Your task to perform on an android device: open a new tab in the chrome app Image 0: 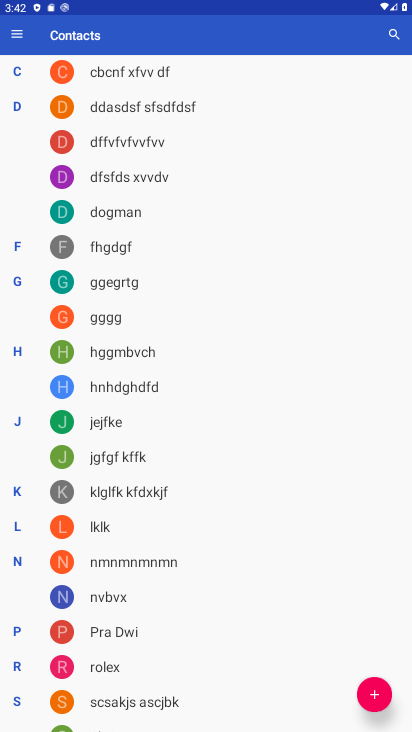
Step 0: press back button
Your task to perform on an android device: open a new tab in the chrome app Image 1: 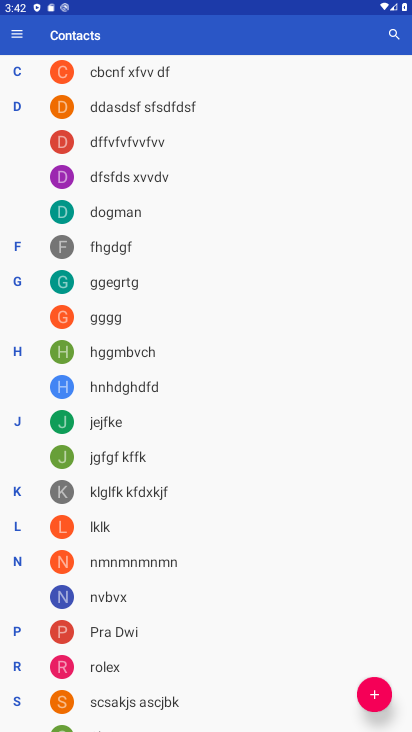
Step 1: press back button
Your task to perform on an android device: open a new tab in the chrome app Image 2: 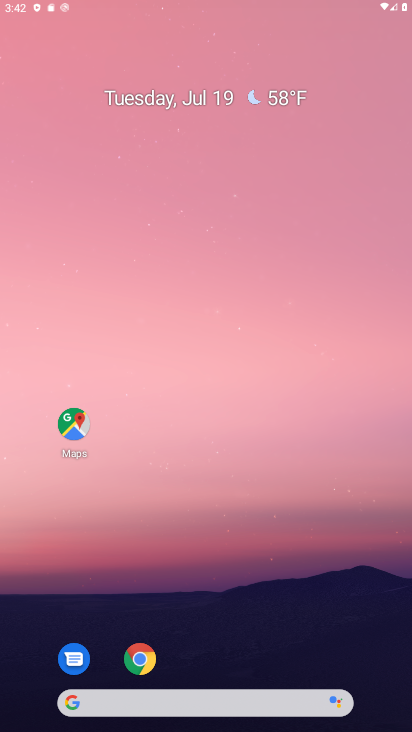
Step 2: press back button
Your task to perform on an android device: open a new tab in the chrome app Image 3: 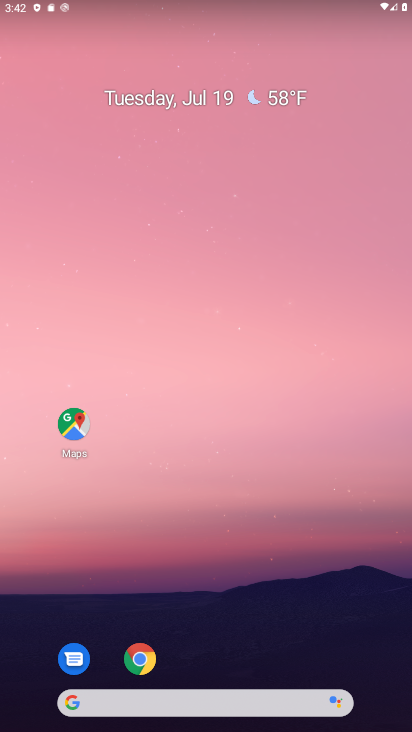
Step 3: drag from (292, 596) to (265, 86)
Your task to perform on an android device: open a new tab in the chrome app Image 4: 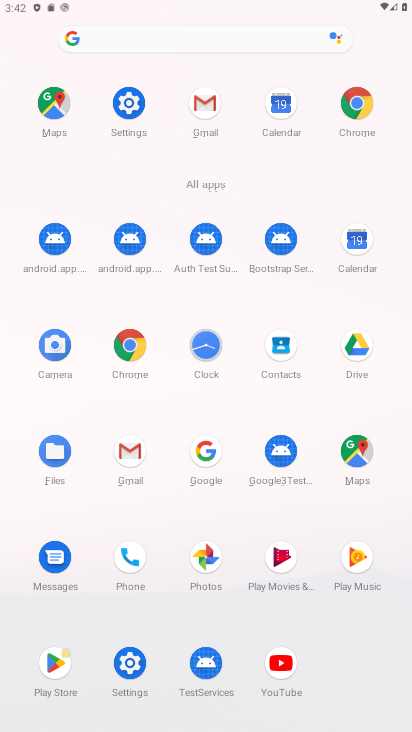
Step 4: click (348, 110)
Your task to perform on an android device: open a new tab in the chrome app Image 5: 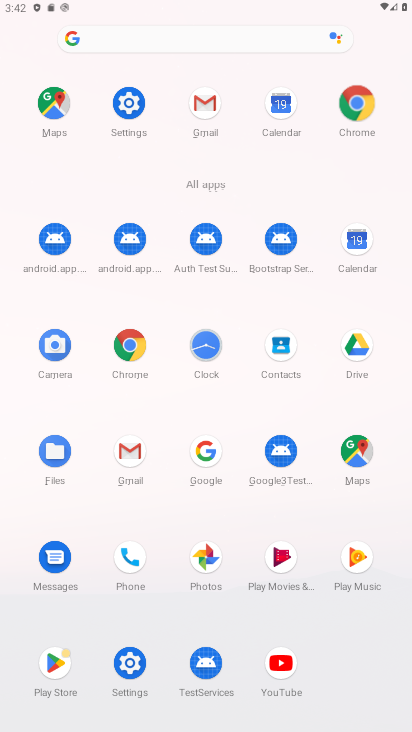
Step 5: click (349, 109)
Your task to perform on an android device: open a new tab in the chrome app Image 6: 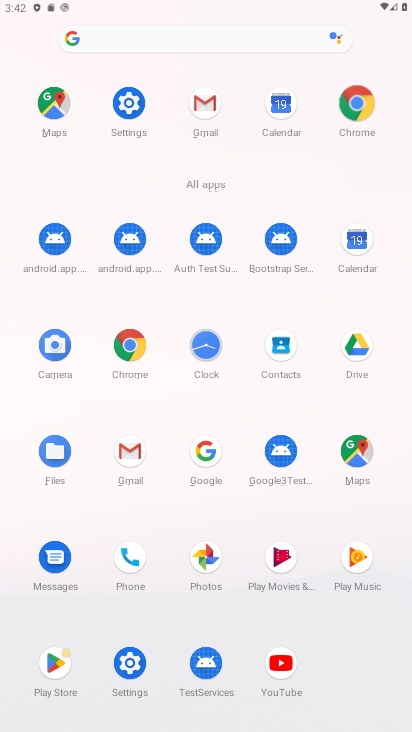
Step 6: click (350, 110)
Your task to perform on an android device: open a new tab in the chrome app Image 7: 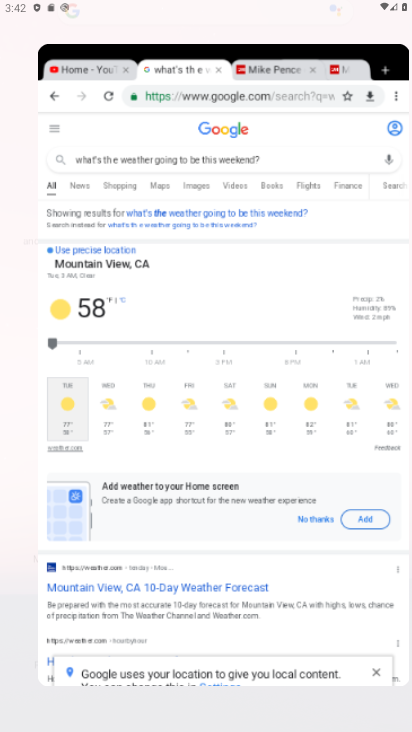
Step 7: click (350, 110)
Your task to perform on an android device: open a new tab in the chrome app Image 8: 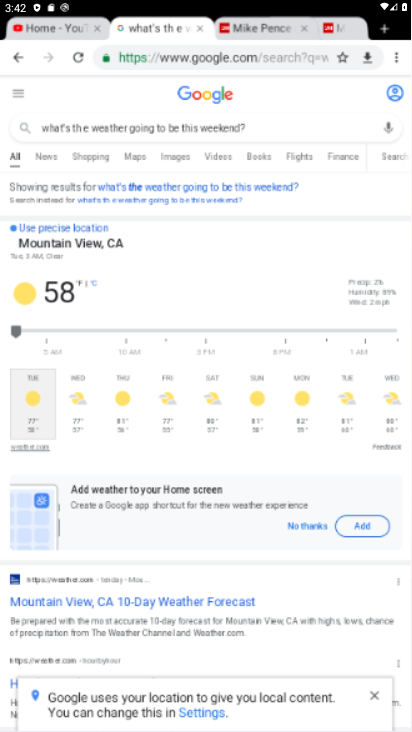
Step 8: click (350, 110)
Your task to perform on an android device: open a new tab in the chrome app Image 9: 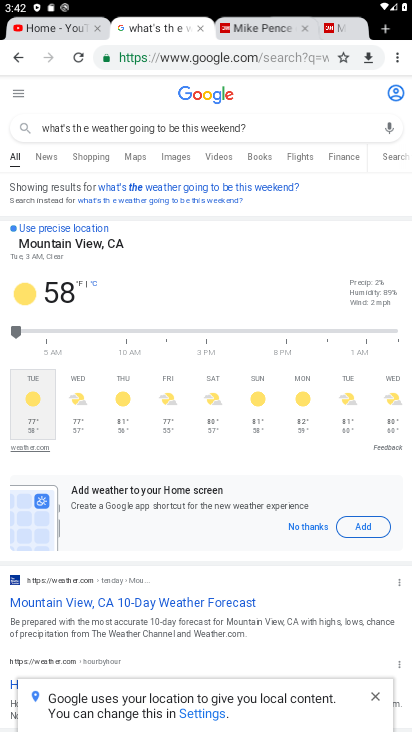
Step 9: drag from (407, 56) to (404, 113)
Your task to perform on an android device: open a new tab in the chrome app Image 10: 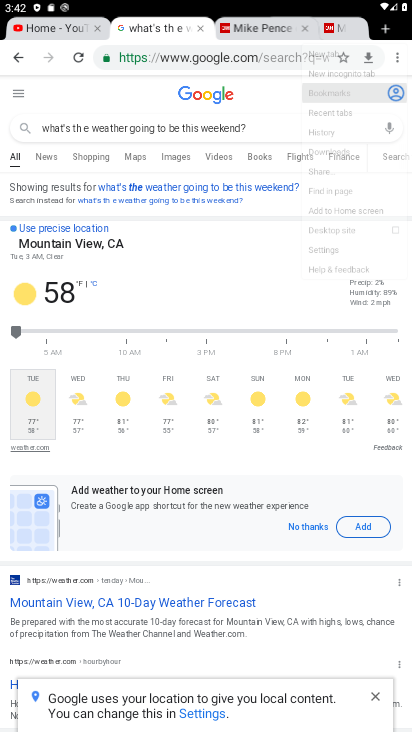
Step 10: click (404, 113)
Your task to perform on an android device: open a new tab in the chrome app Image 11: 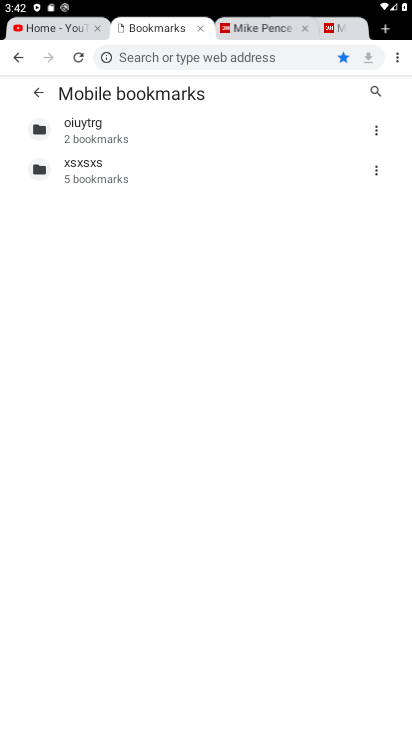
Step 11: click (404, 59)
Your task to perform on an android device: open a new tab in the chrome app Image 12: 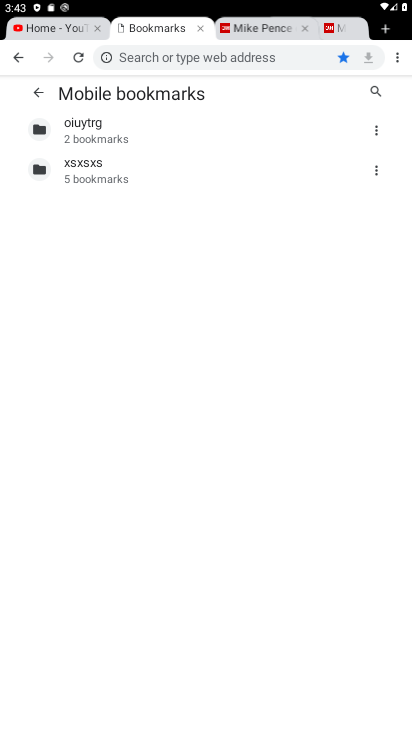
Step 12: drag from (393, 68) to (270, 59)
Your task to perform on an android device: open a new tab in the chrome app Image 13: 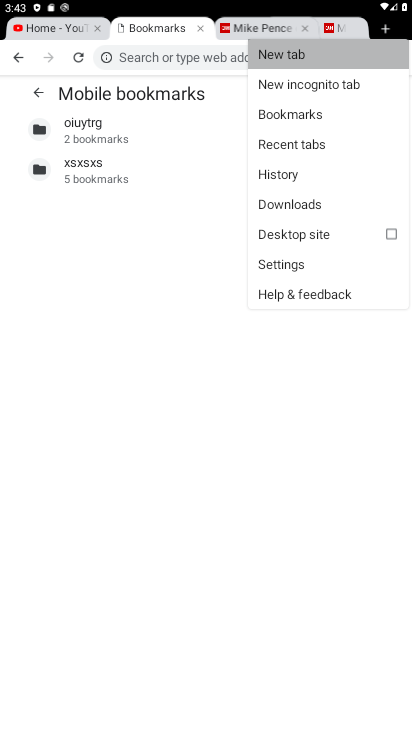
Step 13: click (269, 58)
Your task to perform on an android device: open a new tab in the chrome app Image 14: 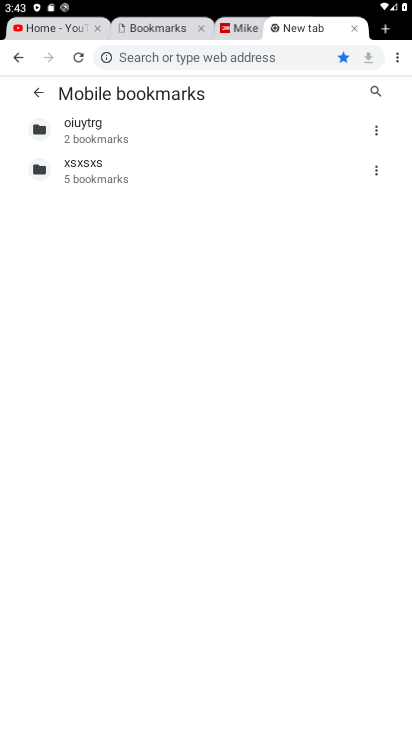
Step 14: click (269, 58)
Your task to perform on an android device: open a new tab in the chrome app Image 15: 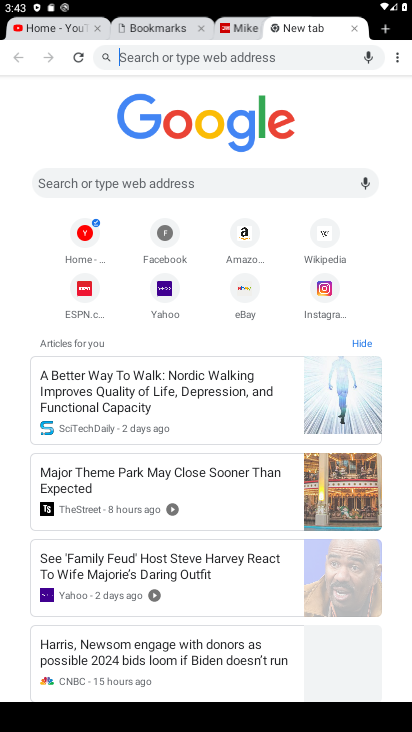
Step 15: task complete